Your task to perform on an android device: show emergency info Image 0: 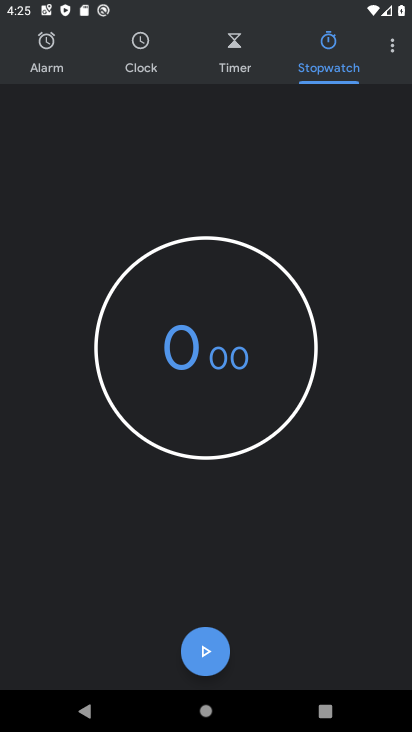
Step 0: press home button
Your task to perform on an android device: show emergency info Image 1: 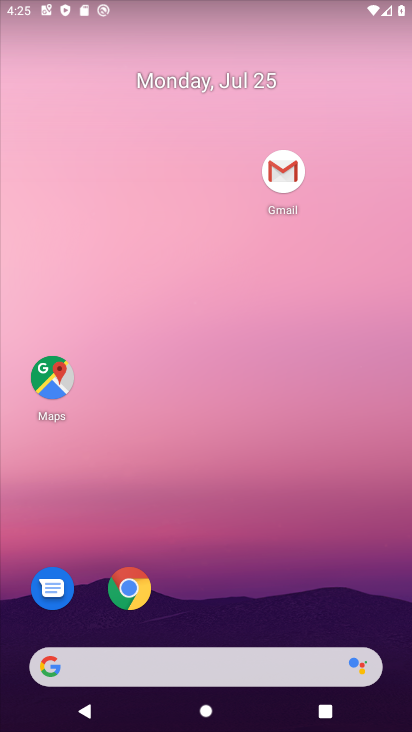
Step 1: drag from (339, 586) to (289, 155)
Your task to perform on an android device: show emergency info Image 2: 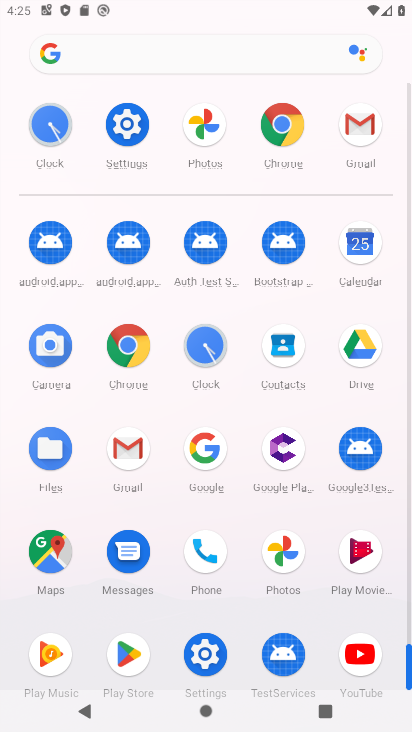
Step 2: click (133, 125)
Your task to perform on an android device: show emergency info Image 3: 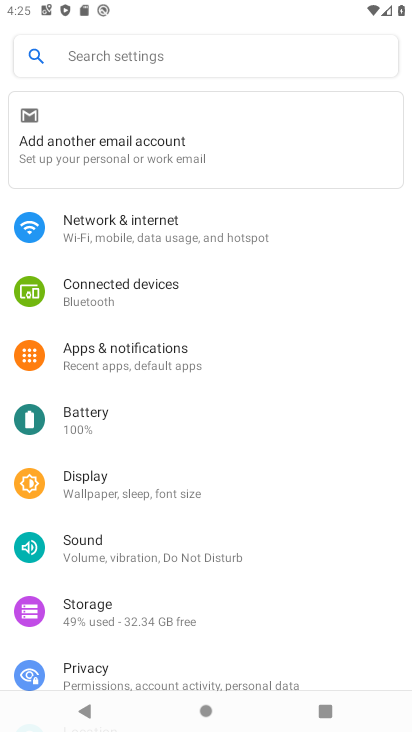
Step 3: drag from (201, 618) to (289, 271)
Your task to perform on an android device: show emergency info Image 4: 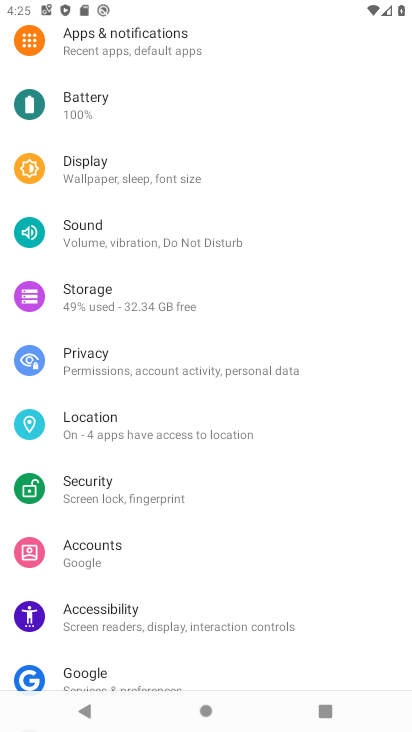
Step 4: drag from (167, 578) to (343, 244)
Your task to perform on an android device: show emergency info Image 5: 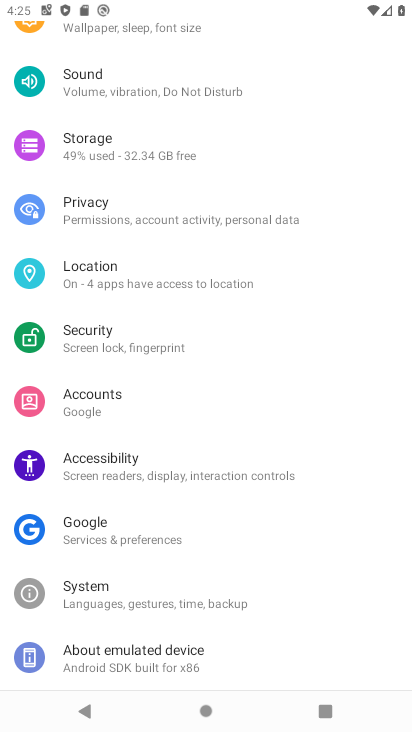
Step 5: click (166, 655)
Your task to perform on an android device: show emergency info Image 6: 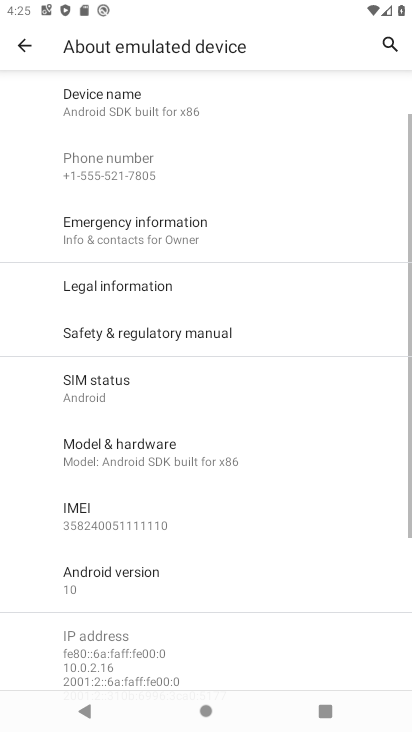
Step 6: click (208, 244)
Your task to perform on an android device: show emergency info Image 7: 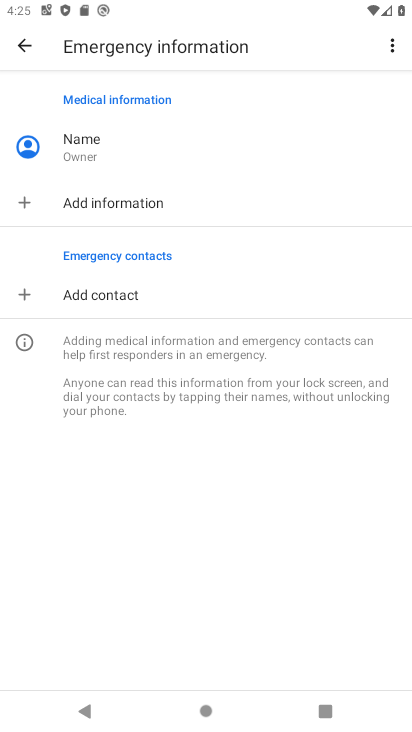
Step 7: task complete